Your task to perform on an android device: Go to privacy settings Image 0: 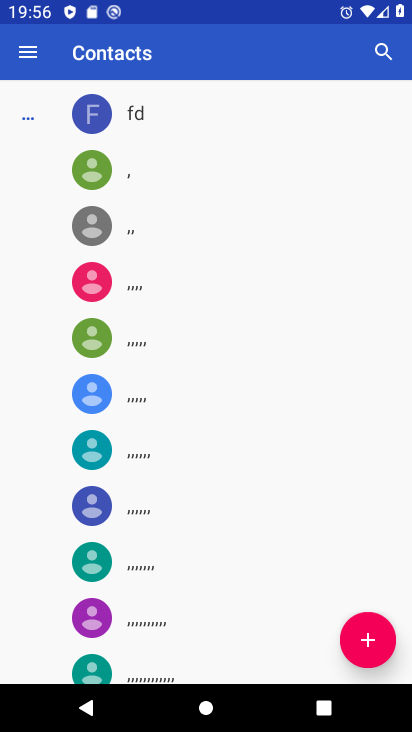
Step 0: press home button
Your task to perform on an android device: Go to privacy settings Image 1: 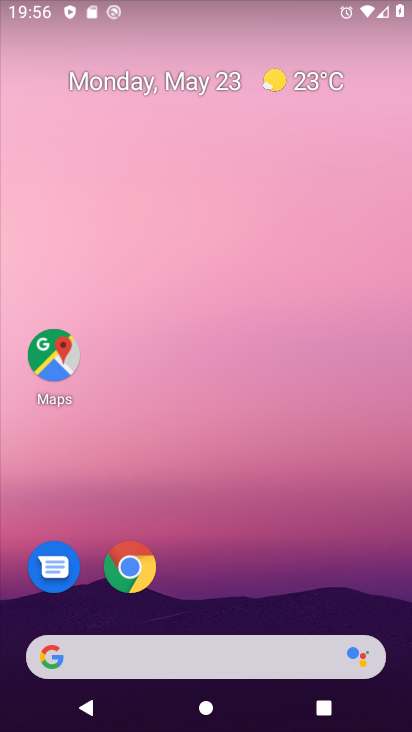
Step 1: drag from (247, 555) to (247, 205)
Your task to perform on an android device: Go to privacy settings Image 2: 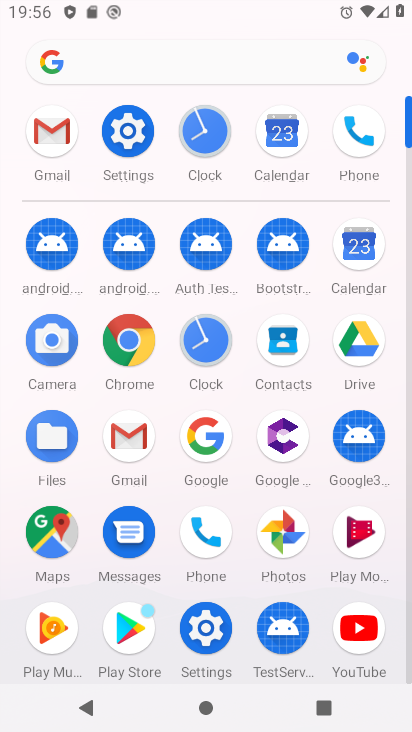
Step 2: click (126, 119)
Your task to perform on an android device: Go to privacy settings Image 3: 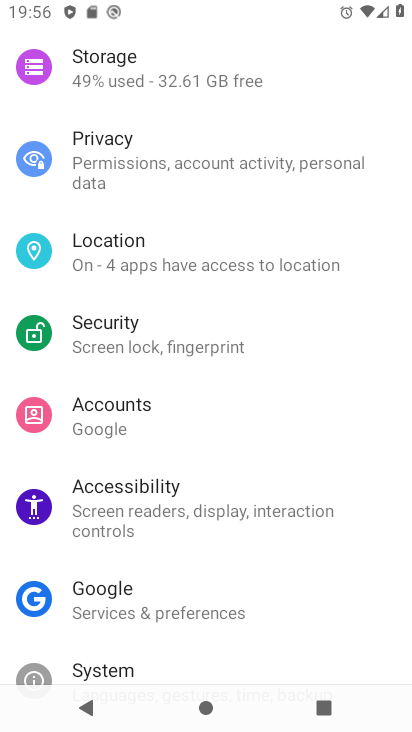
Step 3: click (139, 159)
Your task to perform on an android device: Go to privacy settings Image 4: 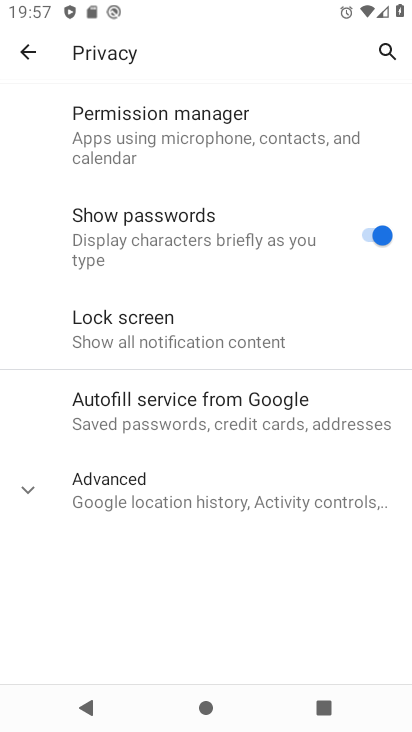
Step 4: task complete